Your task to perform on an android device: Open internet settings Image 0: 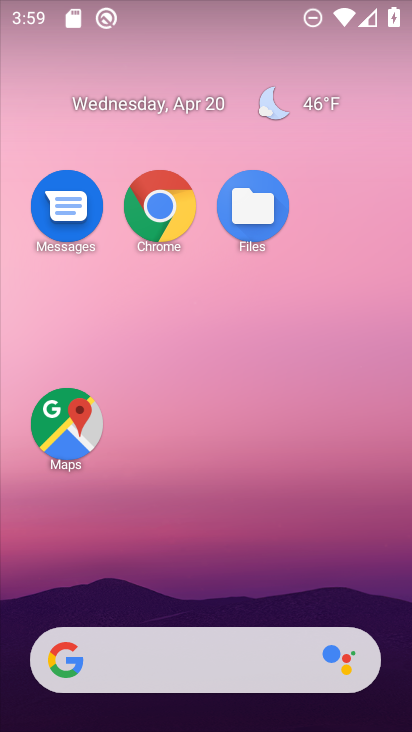
Step 0: drag from (216, 593) to (341, 3)
Your task to perform on an android device: Open internet settings Image 1: 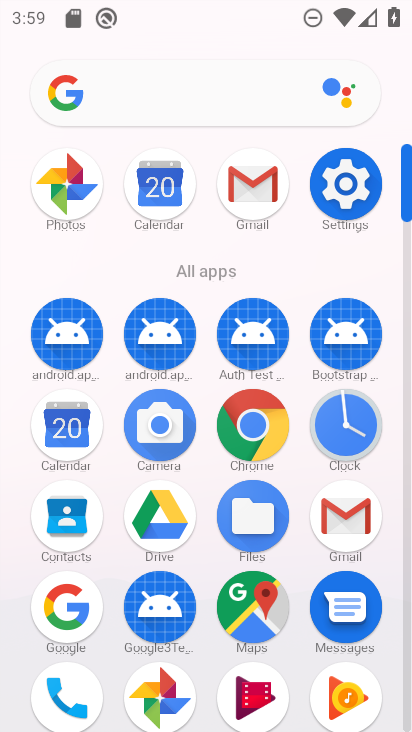
Step 1: click (351, 177)
Your task to perform on an android device: Open internet settings Image 2: 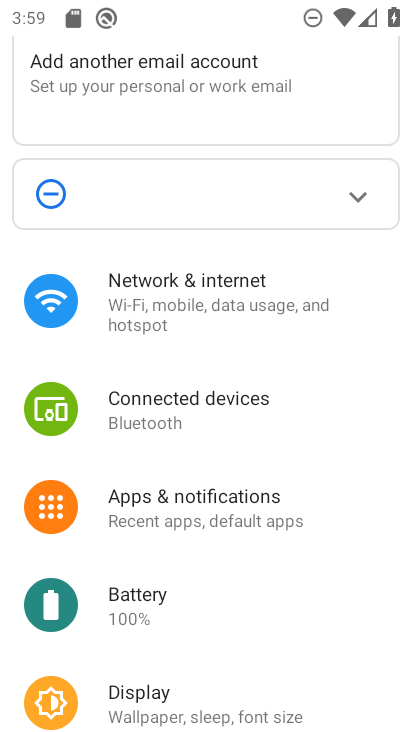
Step 2: click (157, 324)
Your task to perform on an android device: Open internet settings Image 3: 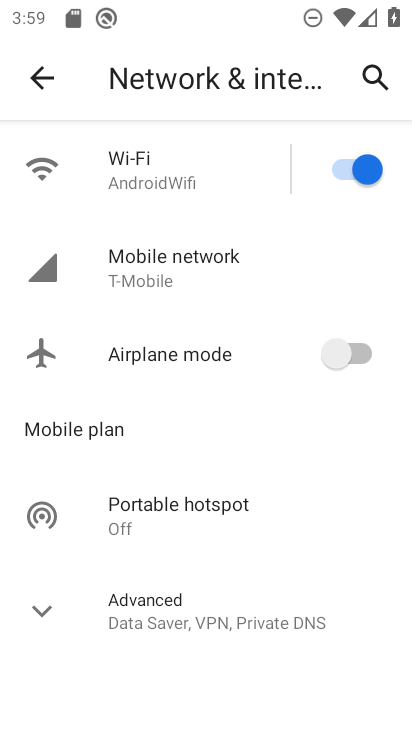
Step 3: task complete